Your task to perform on an android device: toggle priority inbox in the gmail app Image 0: 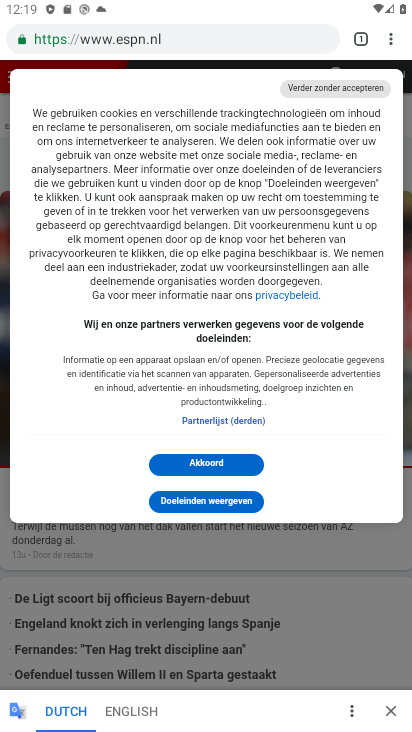
Step 0: press home button
Your task to perform on an android device: toggle priority inbox in the gmail app Image 1: 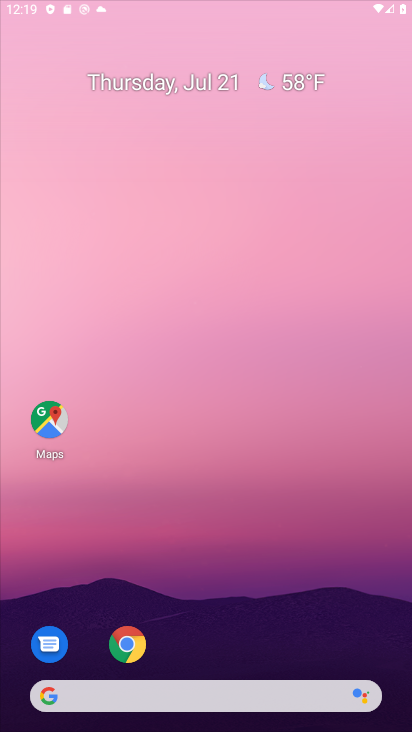
Step 1: drag from (171, 487) to (140, 28)
Your task to perform on an android device: toggle priority inbox in the gmail app Image 2: 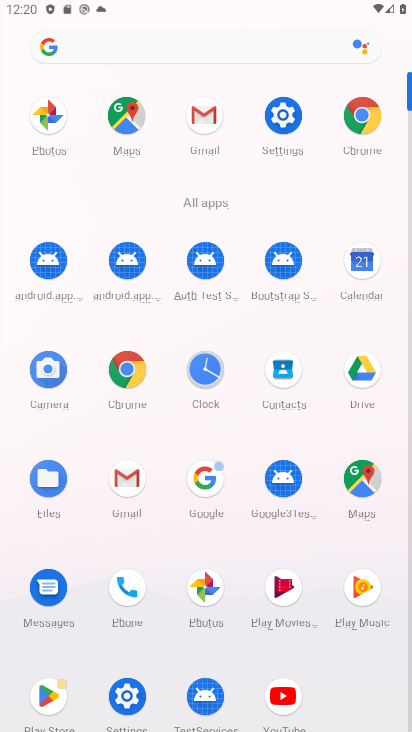
Step 2: click (106, 469)
Your task to perform on an android device: toggle priority inbox in the gmail app Image 3: 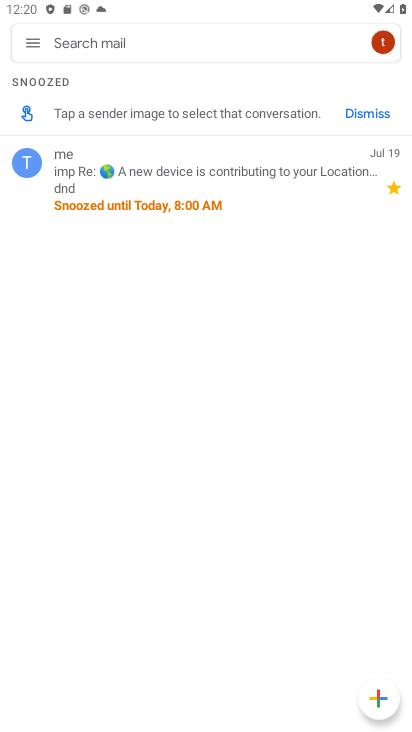
Step 3: click (41, 31)
Your task to perform on an android device: toggle priority inbox in the gmail app Image 4: 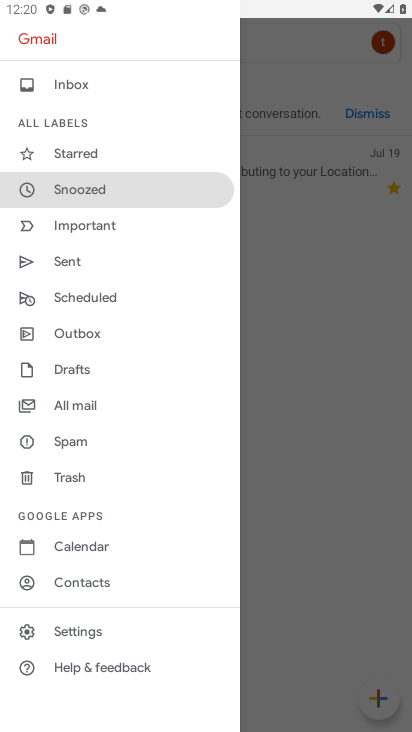
Step 4: click (76, 641)
Your task to perform on an android device: toggle priority inbox in the gmail app Image 5: 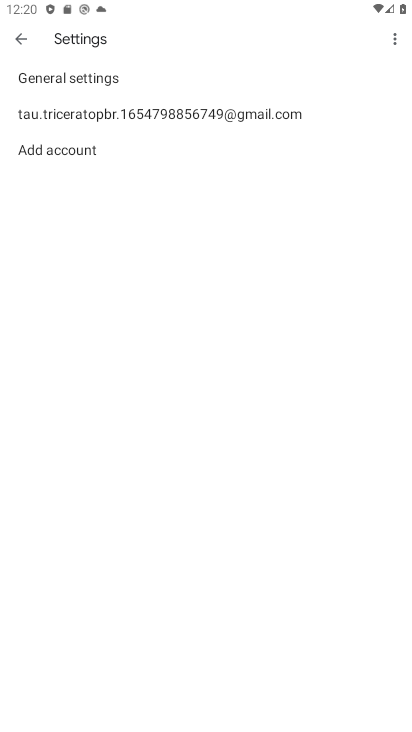
Step 5: click (293, 125)
Your task to perform on an android device: toggle priority inbox in the gmail app Image 6: 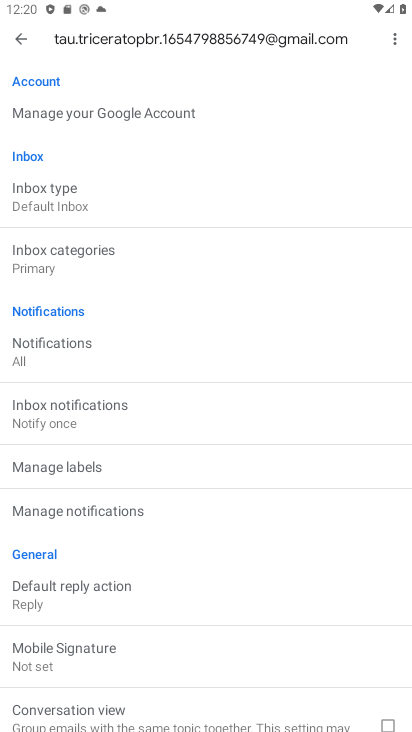
Step 6: click (70, 198)
Your task to perform on an android device: toggle priority inbox in the gmail app Image 7: 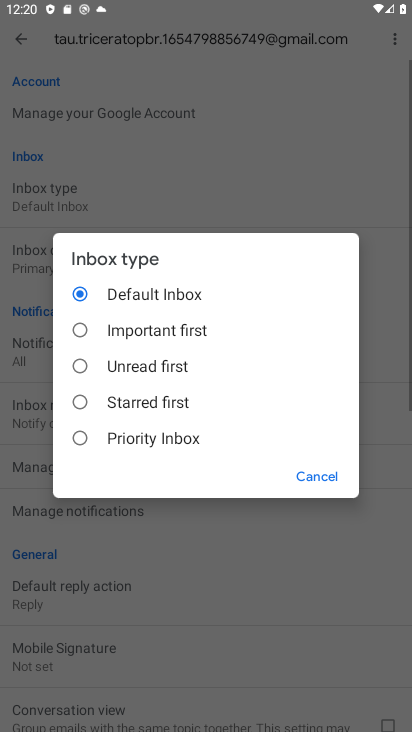
Step 7: click (111, 445)
Your task to perform on an android device: toggle priority inbox in the gmail app Image 8: 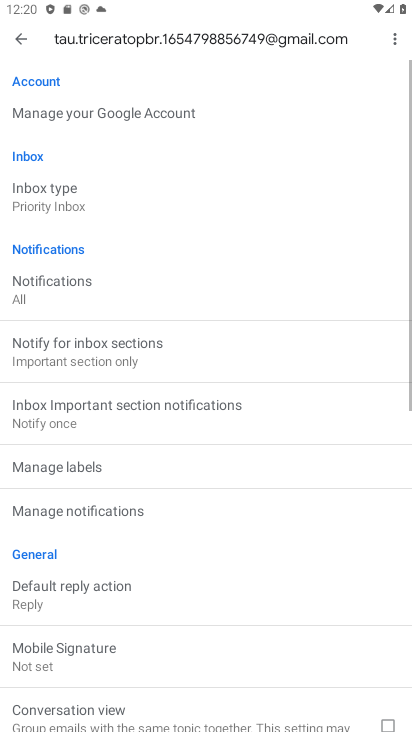
Step 8: task complete